Your task to perform on an android device: manage bookmarks in the chrome app Image 0: 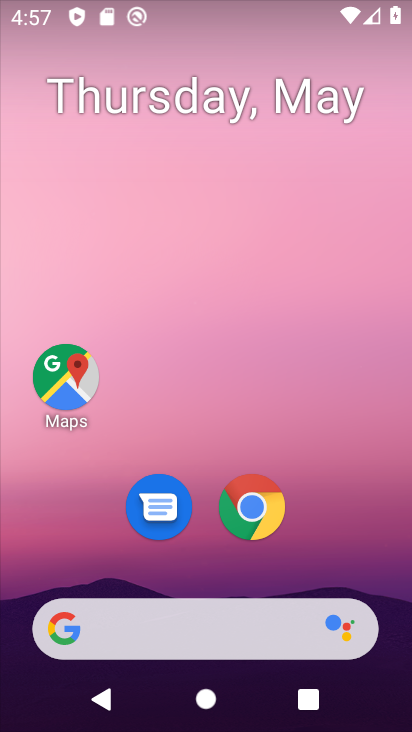
Step 0: click (254, 513)
Your task to perform on an android device: manage bookmarks in the chrome app Image 1: 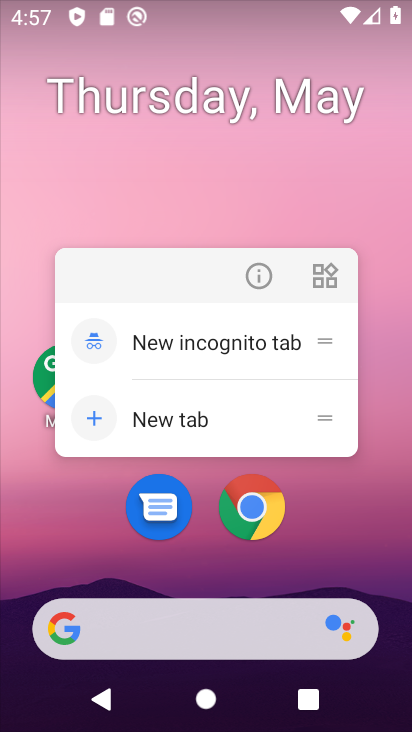
Step 1: click (254, 513)
Your task to perform on an android device: manage bookmarks in the chrome app Image 2: 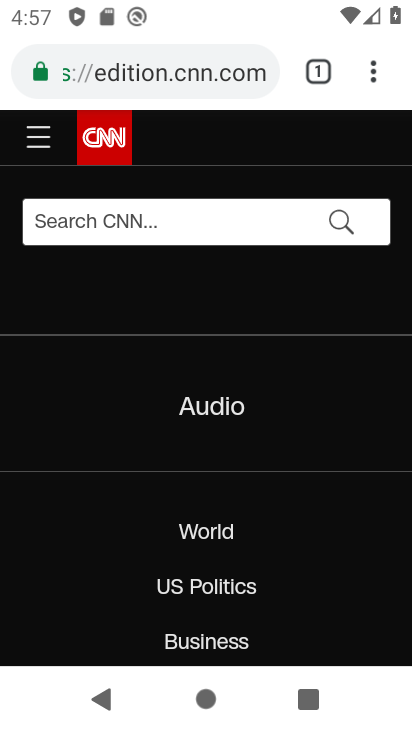
Step 2: task complete